Your task to perform on an android device: Is it going to rain this weekend? Image 0: 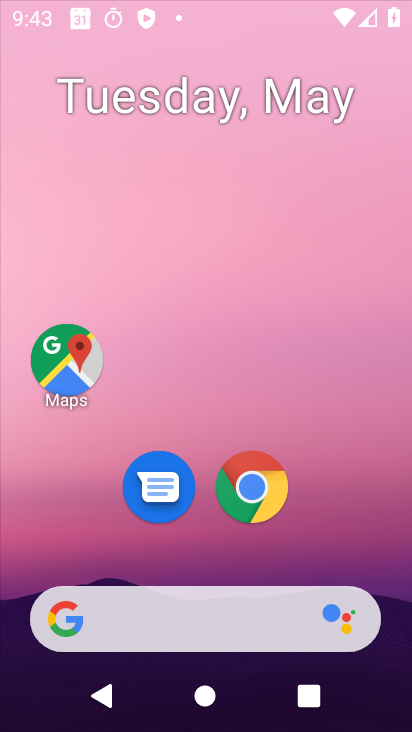
Step 0: click (302, 51)
Your task to perform on an android device: Is it going to rain this weekend? Image 1: 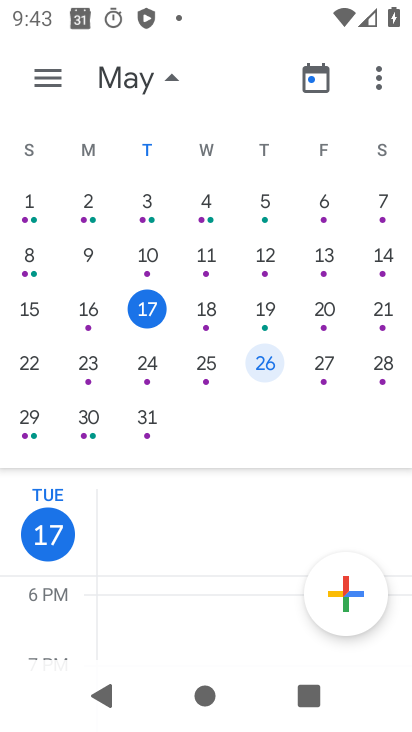
Step 1: press home button
Your task to perform on an android device: Is it going to rain this weekend? Image 2: 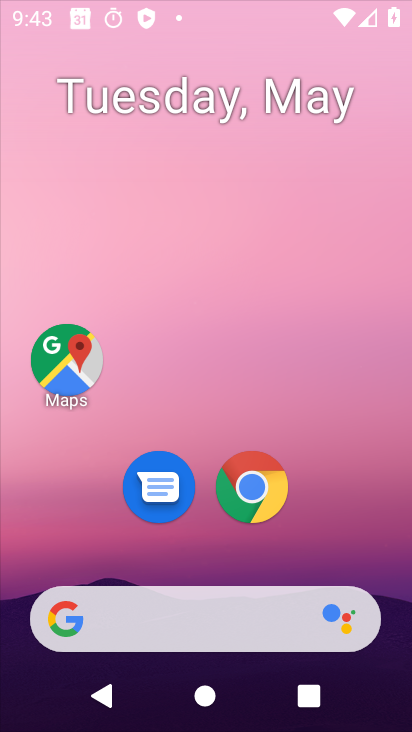
Step 2: drag from (171, 613) to (234, 148)
Your task to perform on an android device: Is it going to rain this weekend? Image 3: 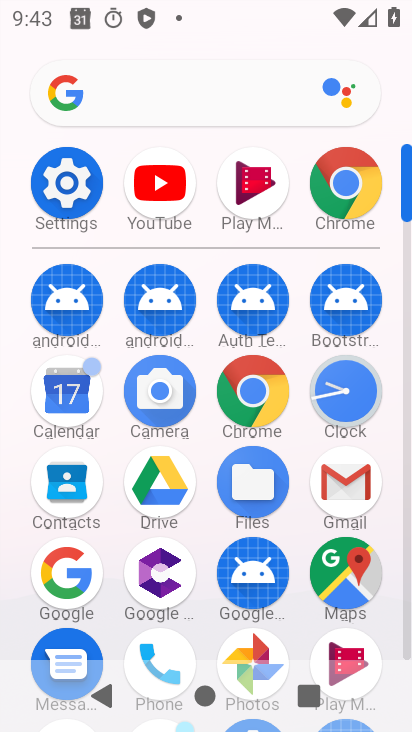
Step 3: click (232, 104)
Your task to perform on an android device: Is it going to rain this weekend? Image 4: 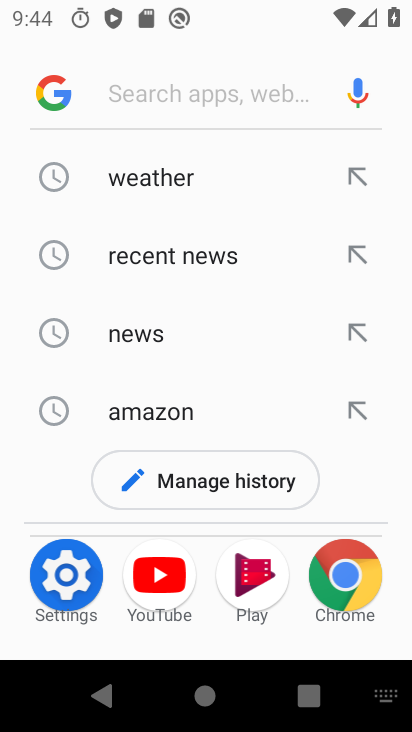
Step 4: type "rain this weekend"
Your task to perform on an android device: Is it going to rain this weekend? Image 5: 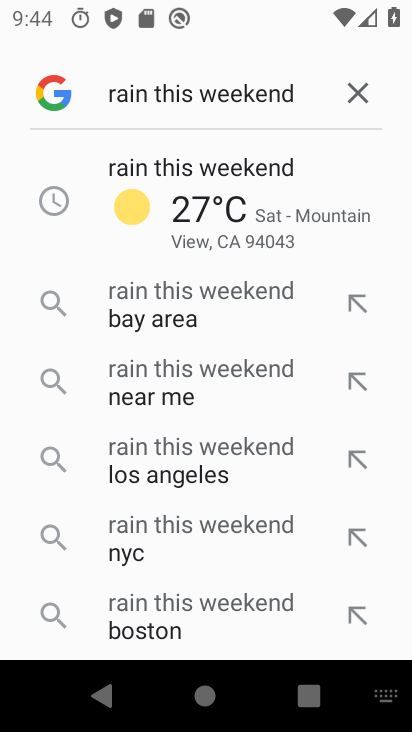
Step 5: click (212, 220)
Your task to perform on an android device: Is it going to rain this weekend? Image 6: 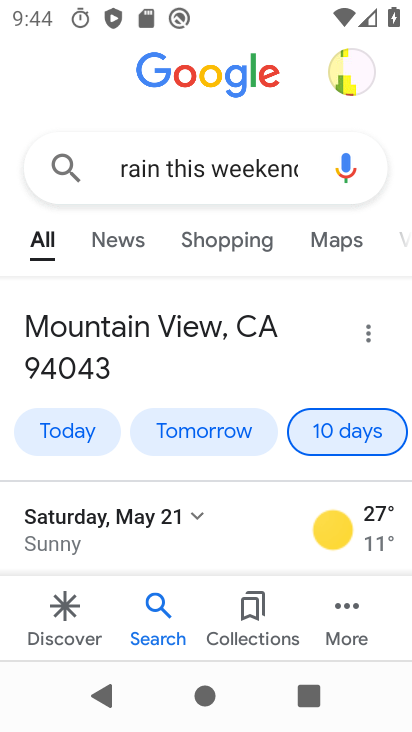
Step 6: task complete